Your task to perform on an android device: Go to Google Image 0: 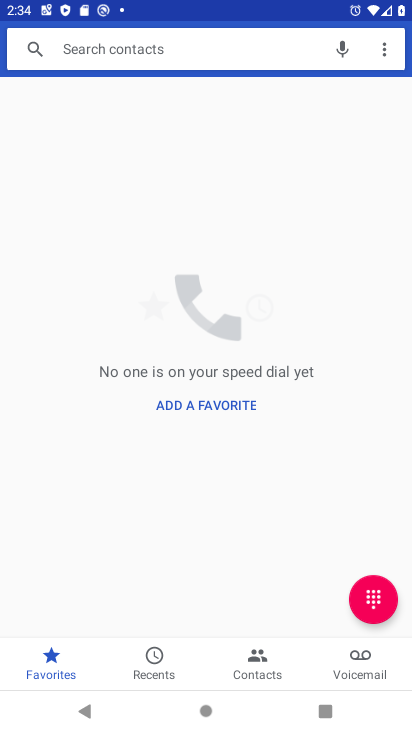
Step 0: drag from (204, 587) to (224, 62)
Your task to perform on an android device: Go to Google Image 1: 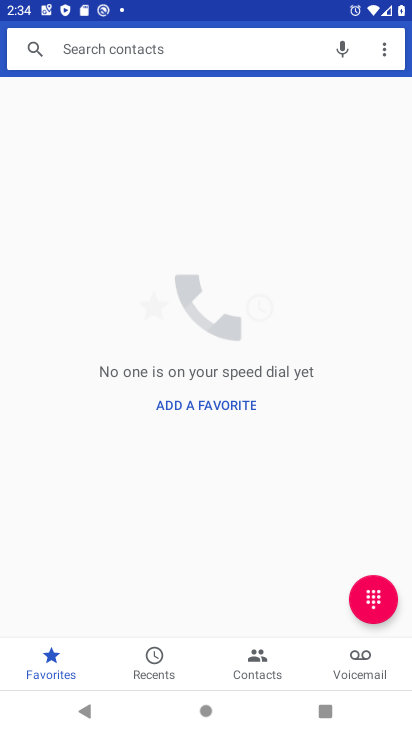
Step 1: drag from (268, 600) to (213, 312)
Your task to perform on an android device: Go to Google Image 2: 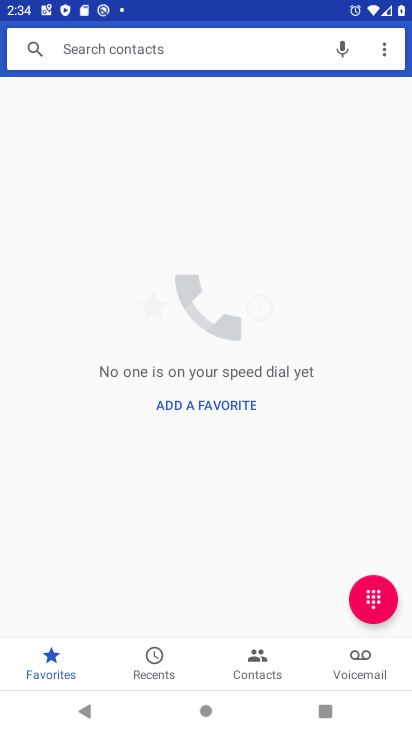
Step 2: drag from (215, 628) to (219, 263)
Your task to perform on an android device: Go to Google Image 3: 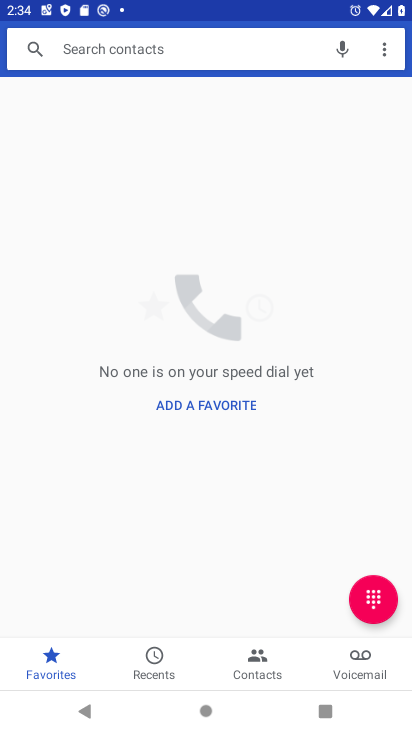
Step 3: press home button
Your task to perform on an android device: Go to Google Image 4: 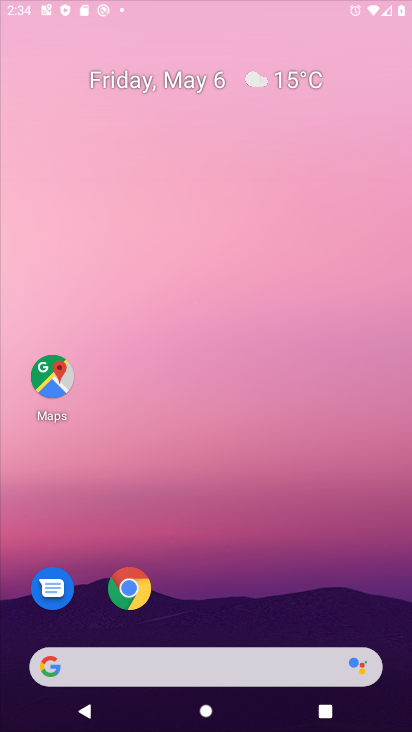
Step 4: drag from (169, 575) to (206, 232)
Your task to perform on an android device: Go to Google Image 5: 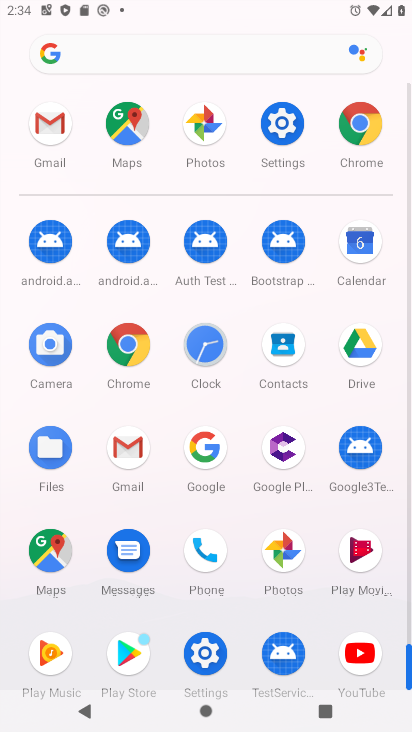
Step 5: click (189, 442)
Your task to perform on an android device: Go to Google Image 6: 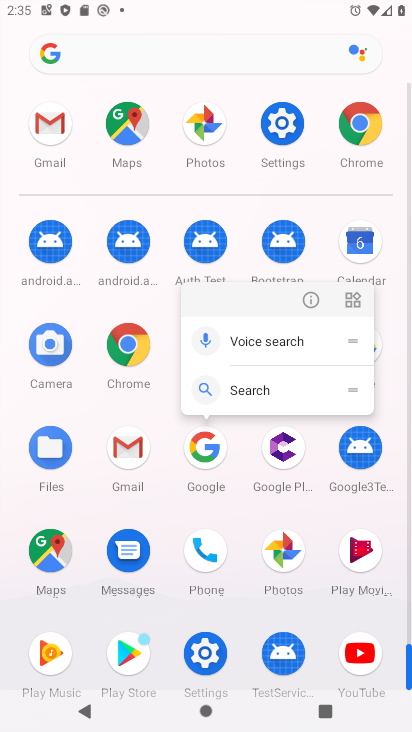
Step 6: click (305, 298)
Your task to perform on an android device: Go to Google Image 7: 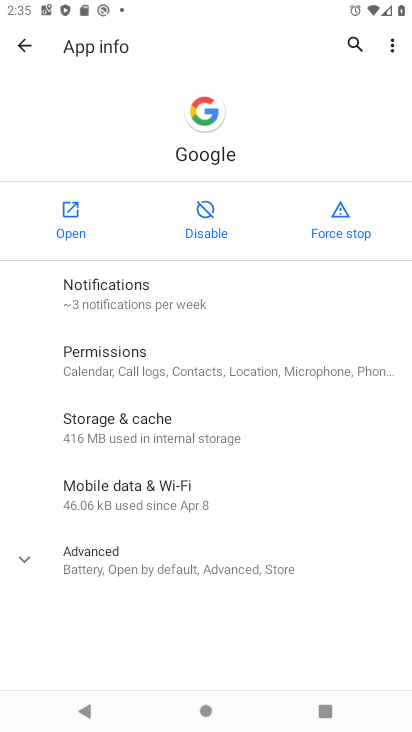
Step 7: click (69, 209)
Your task to perform on an android device: Go to Google Image 8: 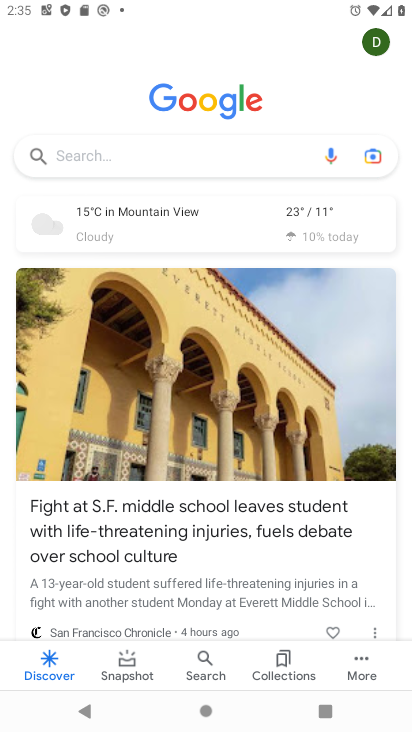
Step 8: task complete